Your task to perform on an android device: turn off priority inbox in the gmail app Image 0: 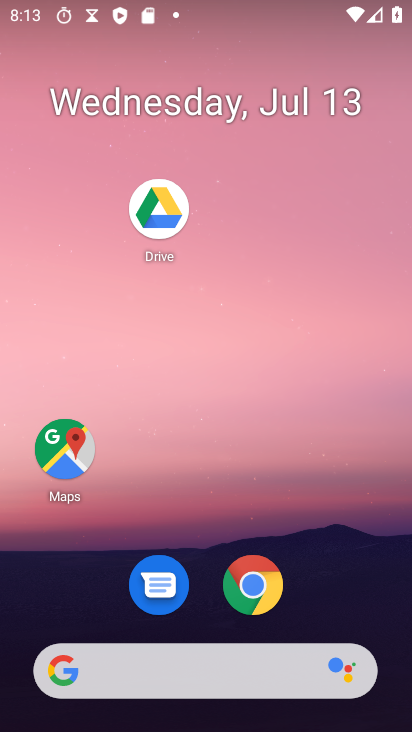
Step 0: drag from (131, 664) to (232, 200)
Your task to perform on an android device: turn off priority inbox in the gmail app Image 1: 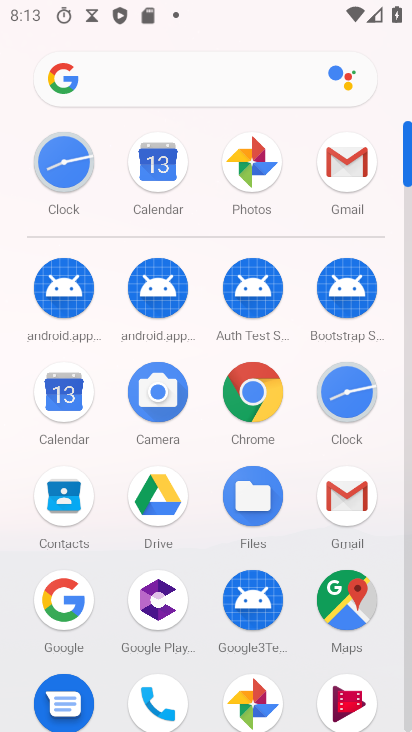
Step 1: click (349, 170)
Your task to perform on an android device: turn off priority inbox in the gmail app Image 2: 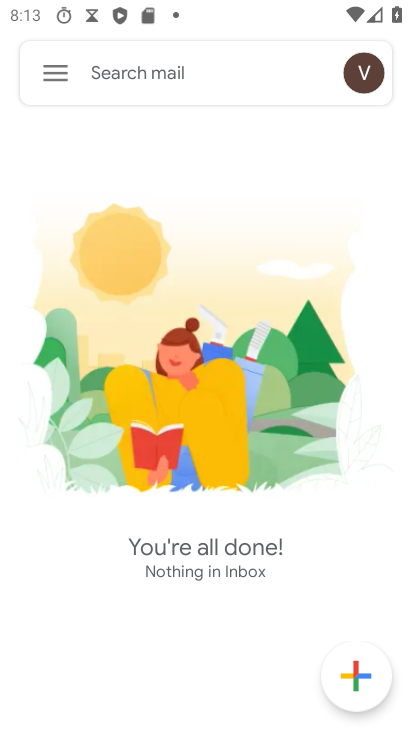
Step 2: click (50, 67)
Your task to perform on an android device: turn off priority inbox in the gmail app Image 3: 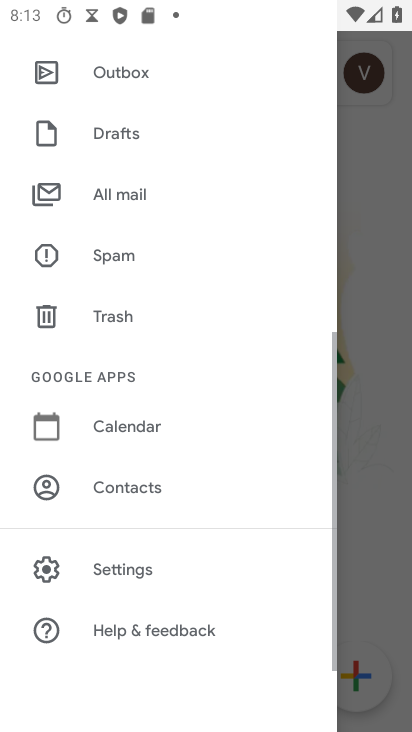
Step 3: click (138, 565)
Your task to perform on an android device: turn off priority inbox in the gmail app Image 4: 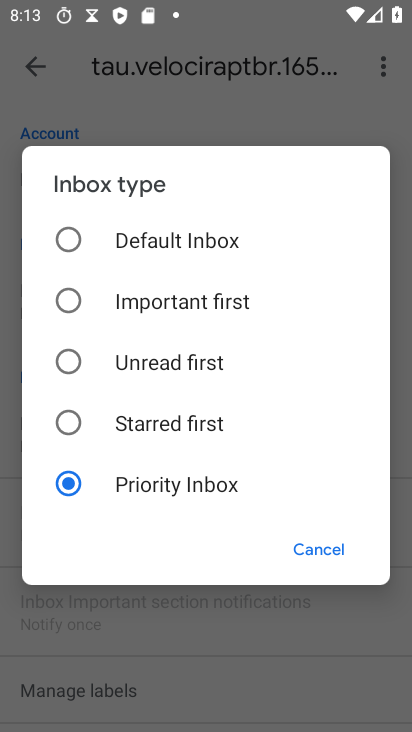
Step 4: click (69, 241)
Your task to perform on an android device: turn off priority inbox in the gmail app Image 5: 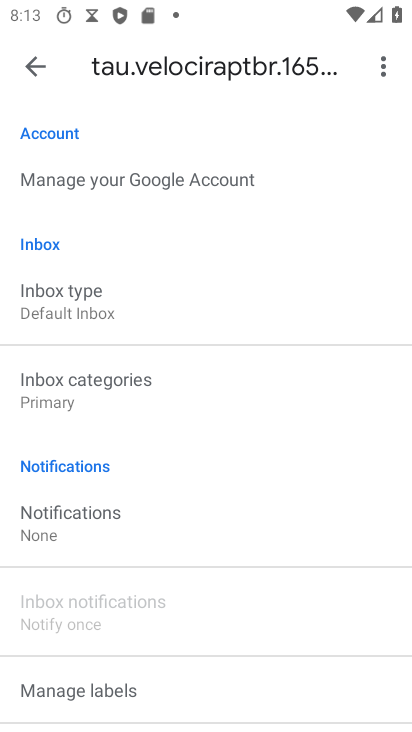
Step 5: task complete